Your task to perform on an android device: What's the weather today? Image 0: 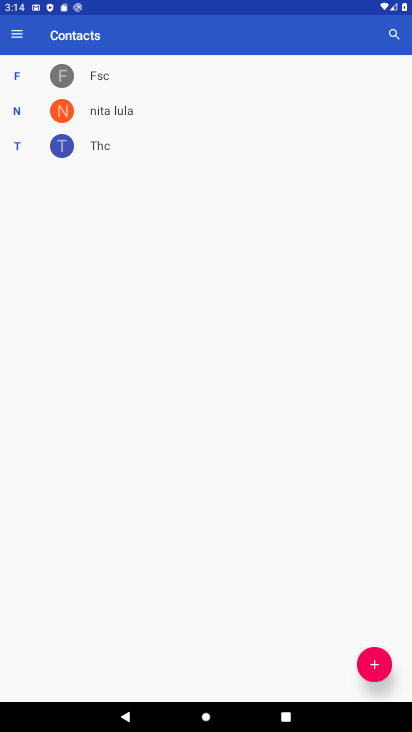
Step 0: press home button
Your task to perform on an android device: What's the weather today? Image 1: 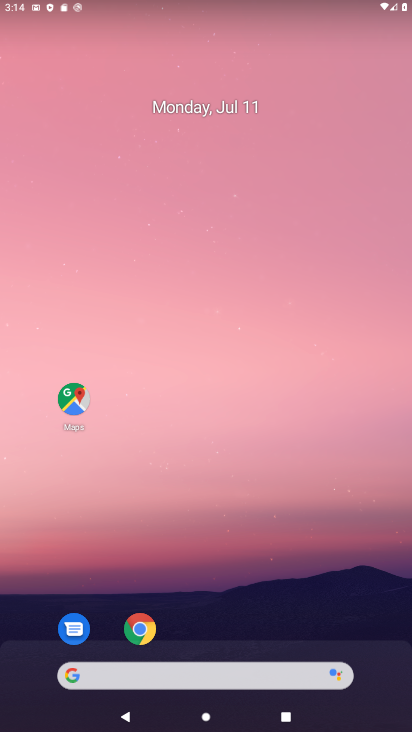
Step 1: drag from (248, 301) to (255, 201)
Your task to perform on an android device: What's the weather today? Image 2: 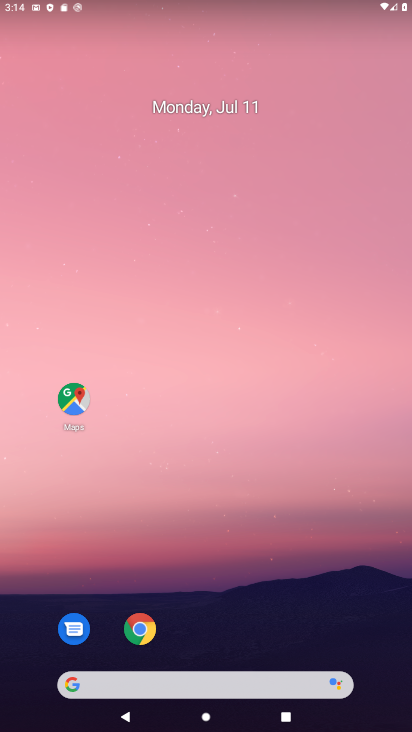
Step 2: drag from (227, 629) to (270, 181)
Your task to perform on an android device: What's the weather today? Image 3: 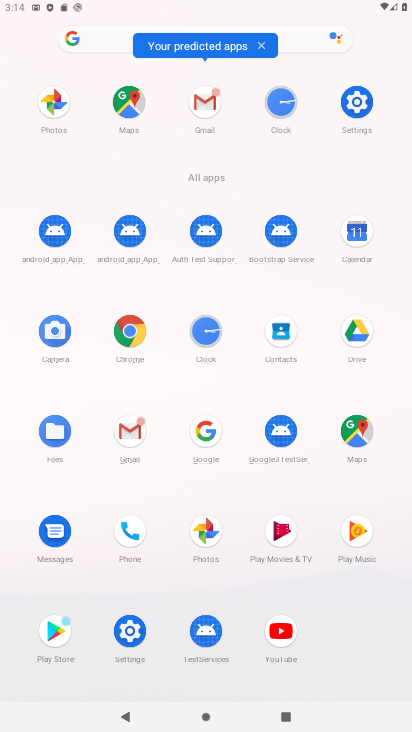
Step 3: click (205, 421)
Your task to perform on an android device: What's the weather today? Image 4: 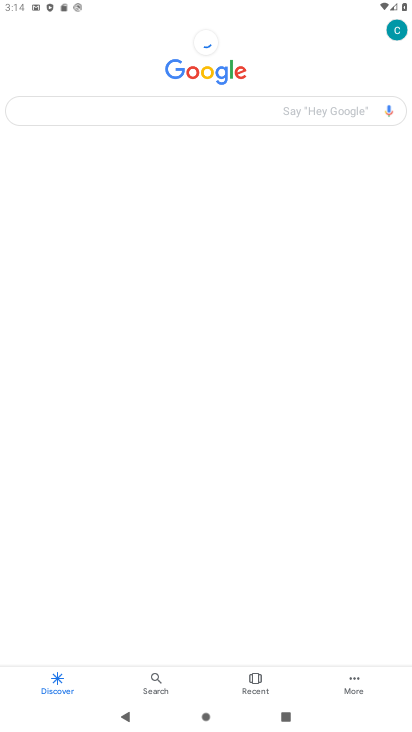
Step 4: click (189, 117)
Your task to perform on an android device: What's the weather today? Image 5: 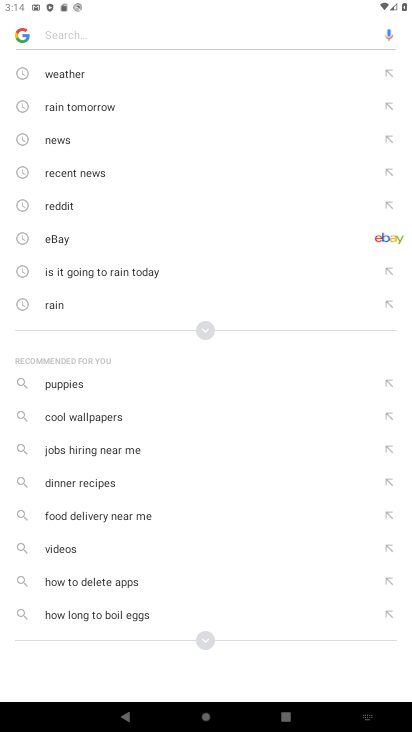
Step 5: click (100, 76)
Your task to perform on an android device: What's the weather today? Image 6: 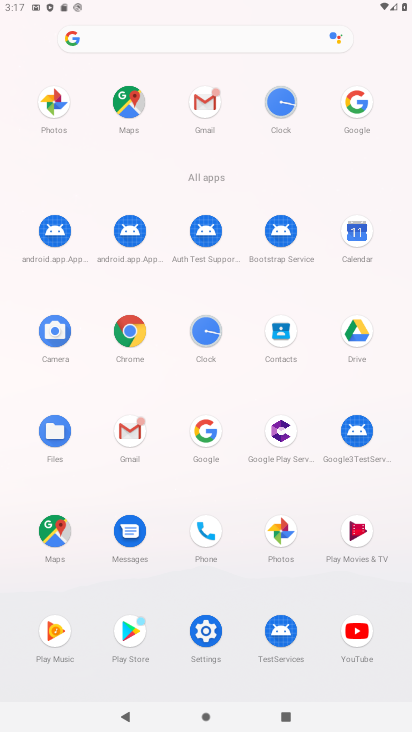
Step 6: click (345, 99)
Your task to perform on an android device: What's the weather today? Image 7: 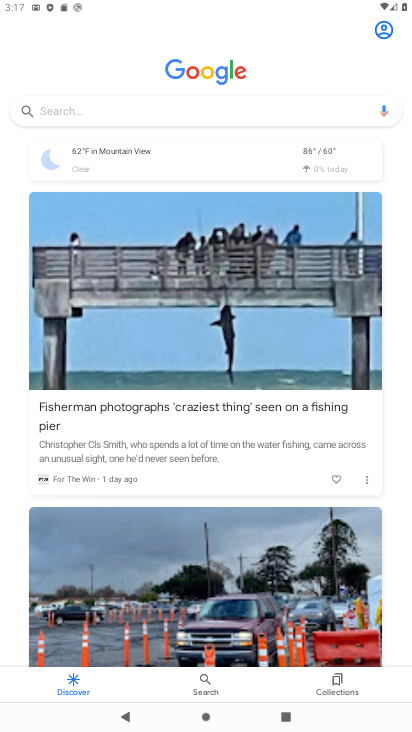
Step 7: task complete